Your task to perform on an android device: clear all cookies in the chrome app Image 0: 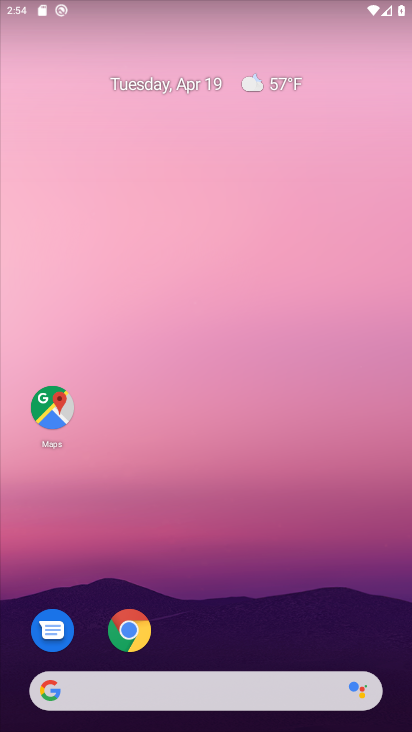
Step 0: press home button
Your task to perform on an android device: clear all cookies in the chrome app Image 1: 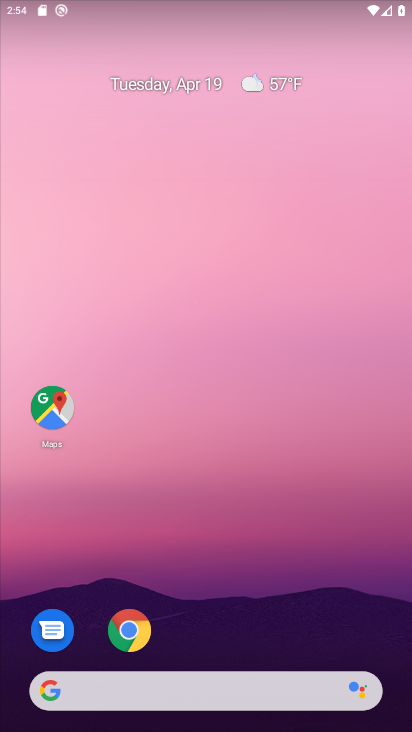
Step 1: click (140, 618)
Your task to perform on an android device: clear all cookies in the chrome app Image 2: 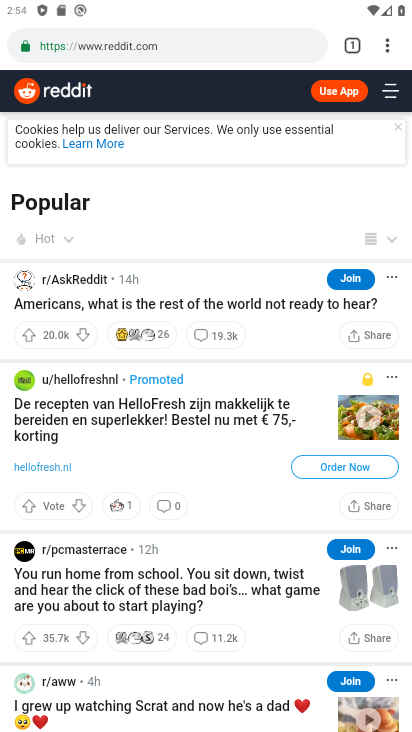
Step 2: click (387, 46)
Your task to perform on an android device: clear all cookies in the chrome app Image 3: 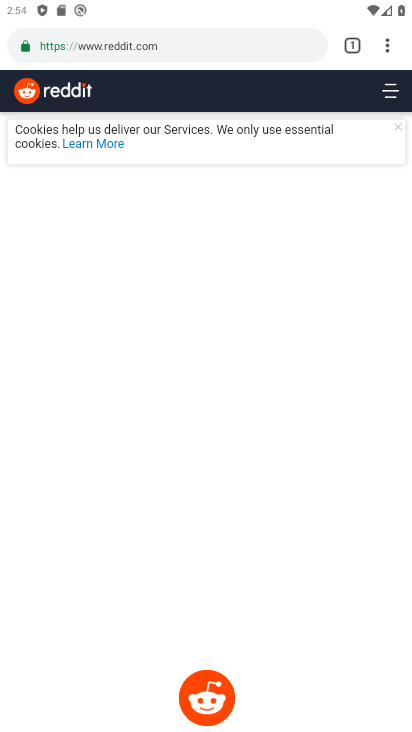
Step 3: drag from (384, 45) to (226, 293)
Your task to perform on an android device: clear all cookies in the chrome app Image 4: 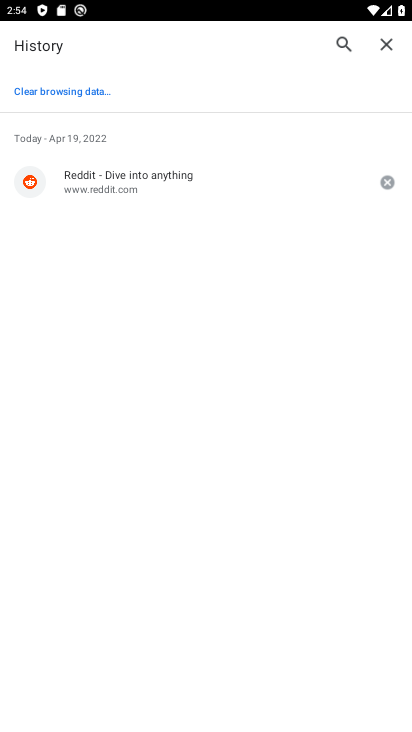
Step 4: click (63, 93)
Your task to perform on an android device: clear all cookies in the chrome app Image 5: 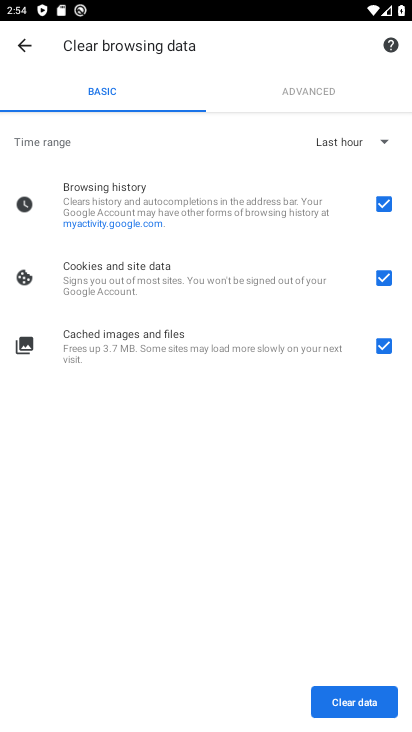
Step 5: click (347, 708)
Your task to perform on an android device: clear all cookies in the chrome app Image 6: 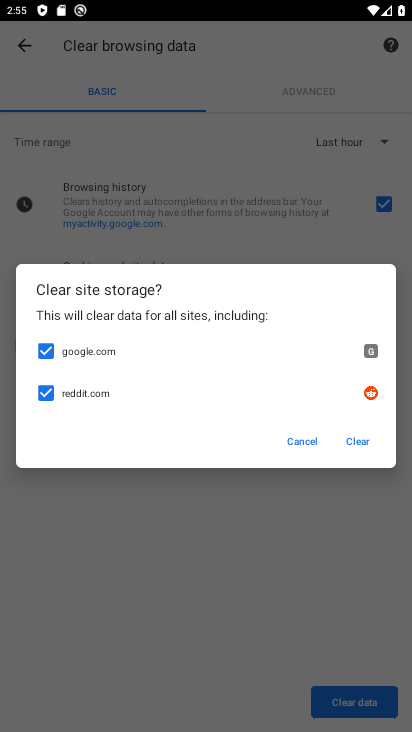
Step 6: click (353, 436)
Your task to perform on an android device: clear all cookies in the chrome app Image 7: 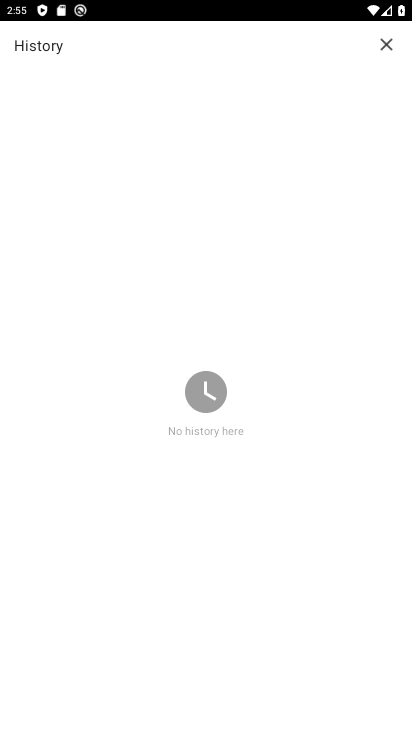
Step 7: task complete